Your task to perform on an android device: Open the phone app and click the voicemail tab. Image 0: 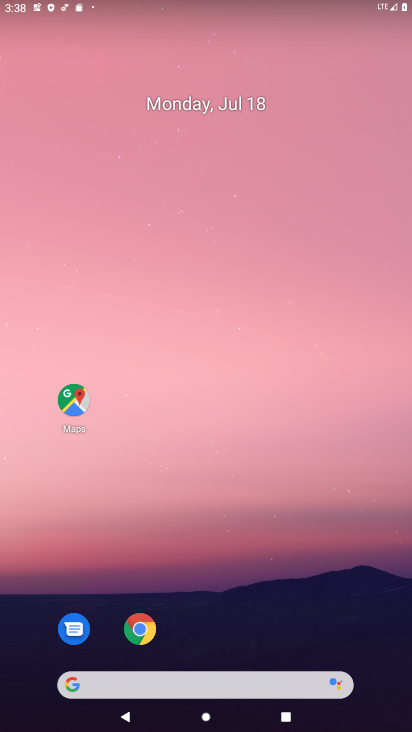
Step 0: drag from (197, 653) to (223, 333)
Your task to perform on an android device: Open the phone app and click the voicemail tab. Image 1: 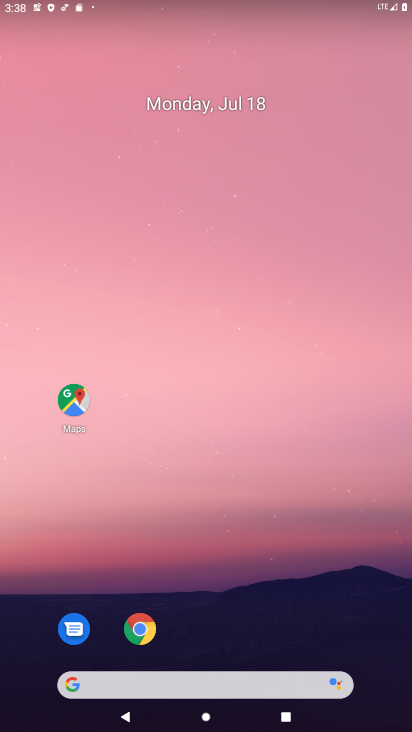
Step 1: drag from (217, 620) to (284, 179)
Your task to perform on an android device: Open the phone app and click the voicemail tab. Image 2: 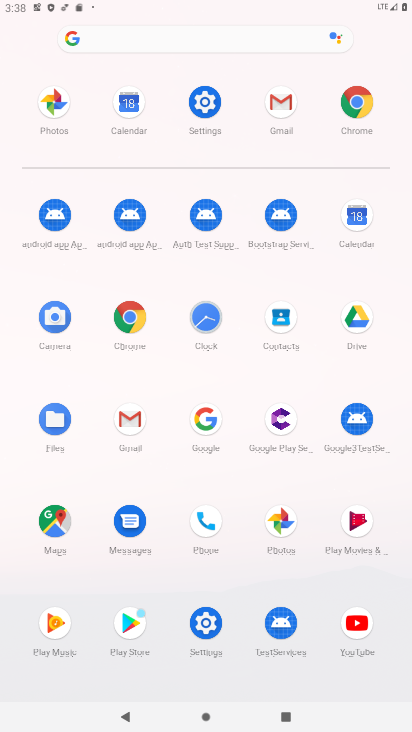
Step 2: click (208, 527)
Your task to perform on an android device: Open the phone app and click the voicemail tab. Image 3: 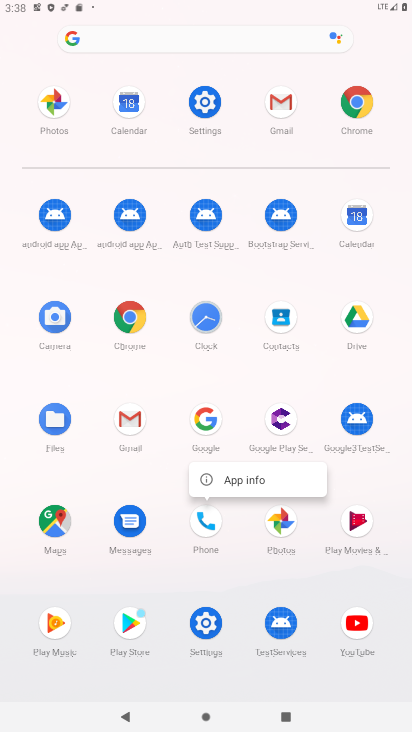
Step 3: click (209, 533)
Your task to perform on an android device: Open the phone app and click the voicemail tab. Image 4: 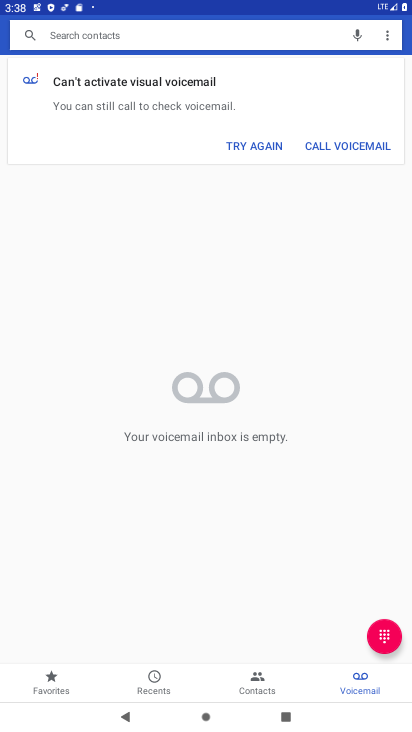
Step 4: task complete